Your task to perform on an android device: open app "Speedtest by Ookla" (install if not already installed) and enter user name: "hyena@outlook.com" and password: "terminators" Image 0: 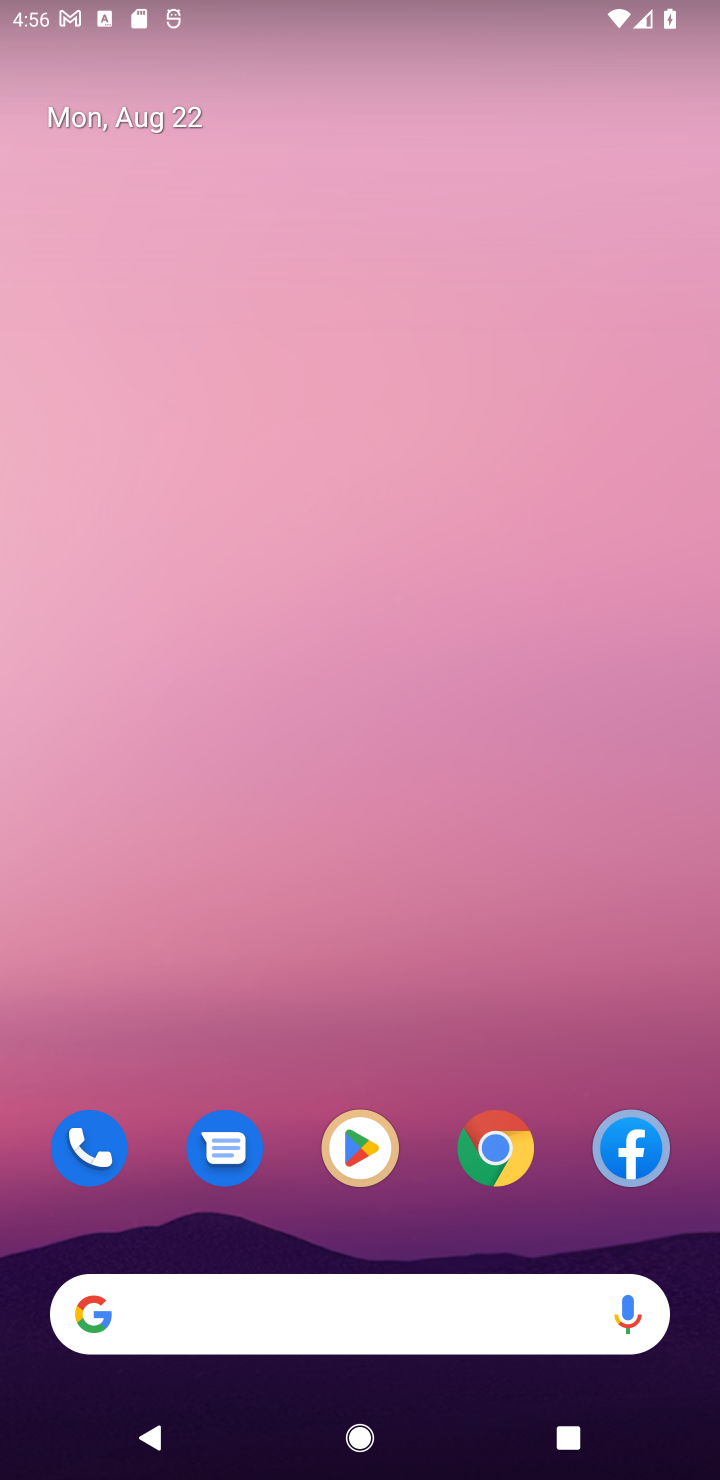
Step 0: drag from (384, 1273) to (359, 24)
Your task to perform on an android device: open app "Speedtest by Ookla" (install if not already installed) and enter user name: "hyena@outlook.com" and password: "terminators" Image 1: 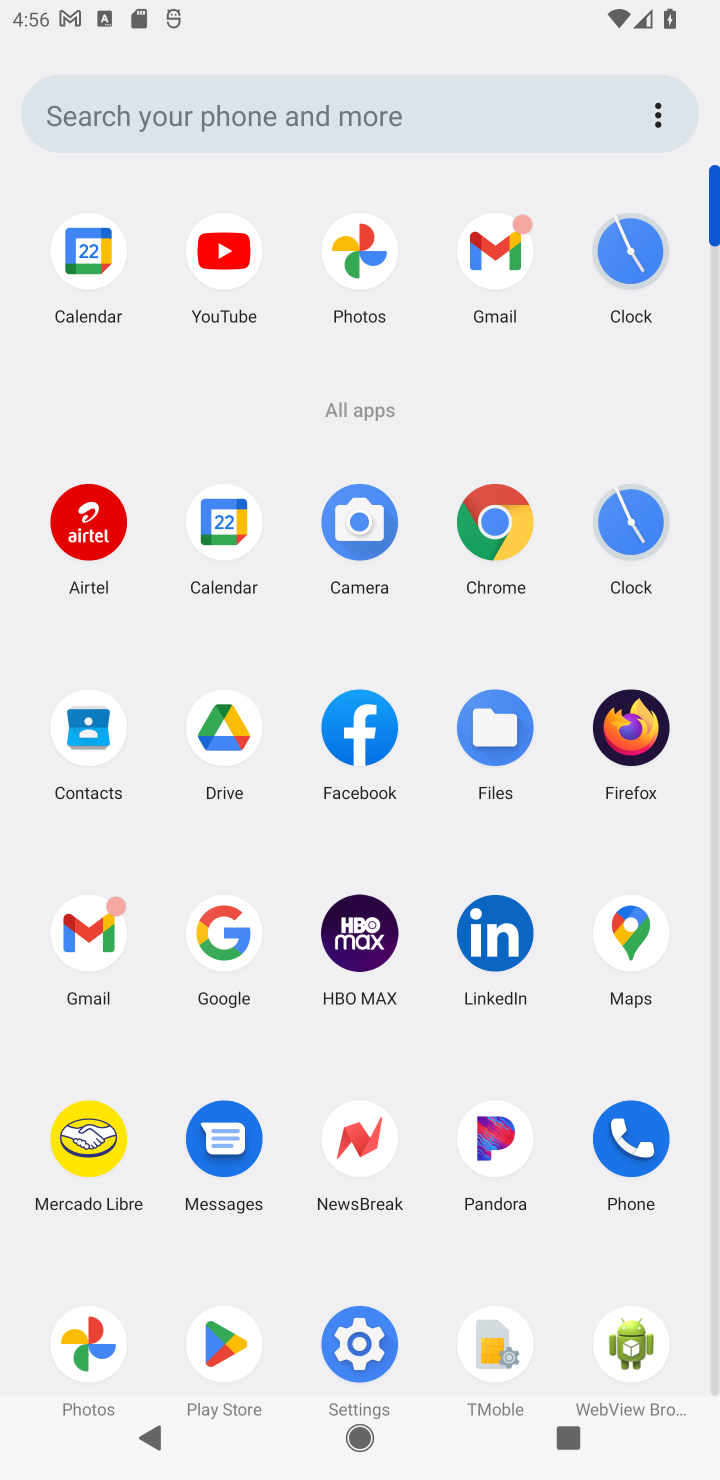
Step 1: click (226, 1341)
Your task to perform on an android device: open app "Speedtest by Ookla" (install if not already installed) and enter user name: "hyena@outlook.com" and password: "terminators" Image 2: 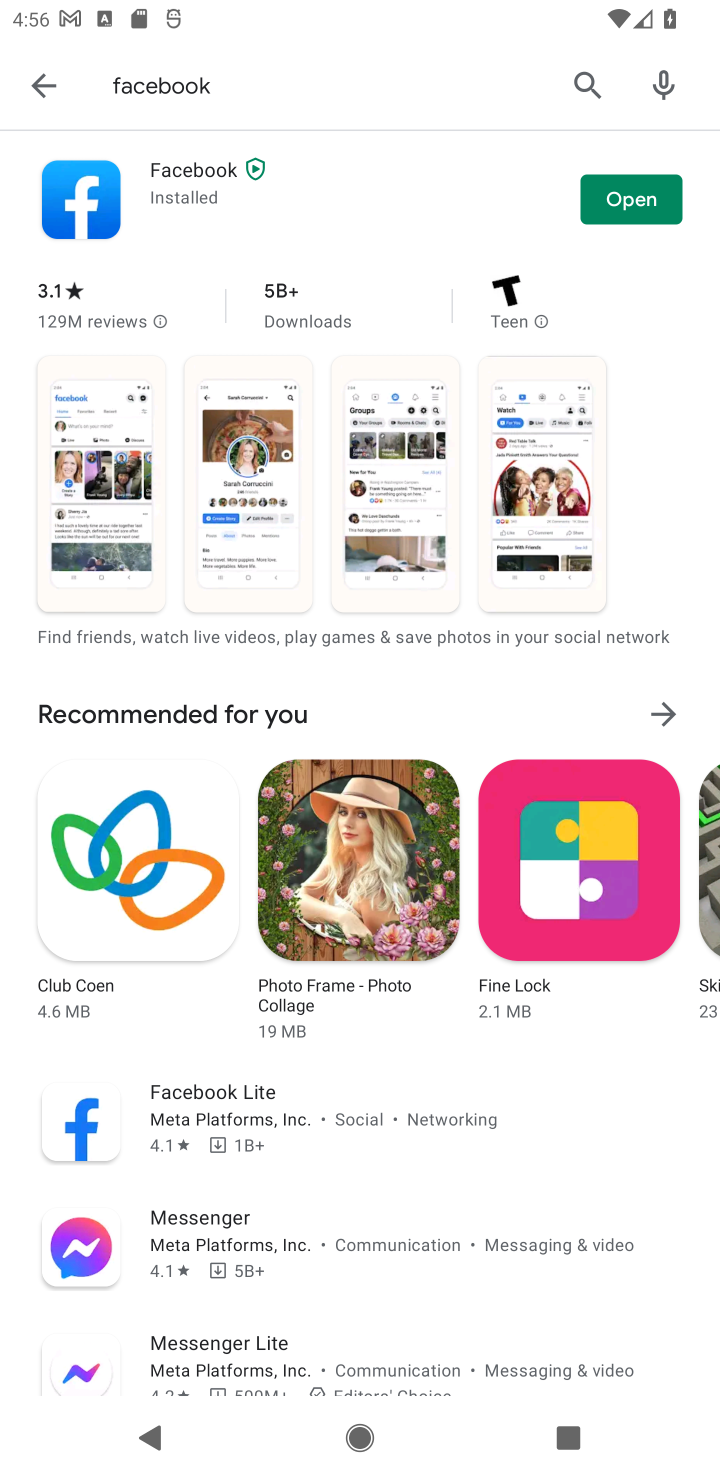
Step 2: click (579, 69)
Your task to perform on an android device: open app "Speedtest by Ookla" (install if not already installed) and enter user name: "hyena@outlook.com" and password: "terminators" Image 3: 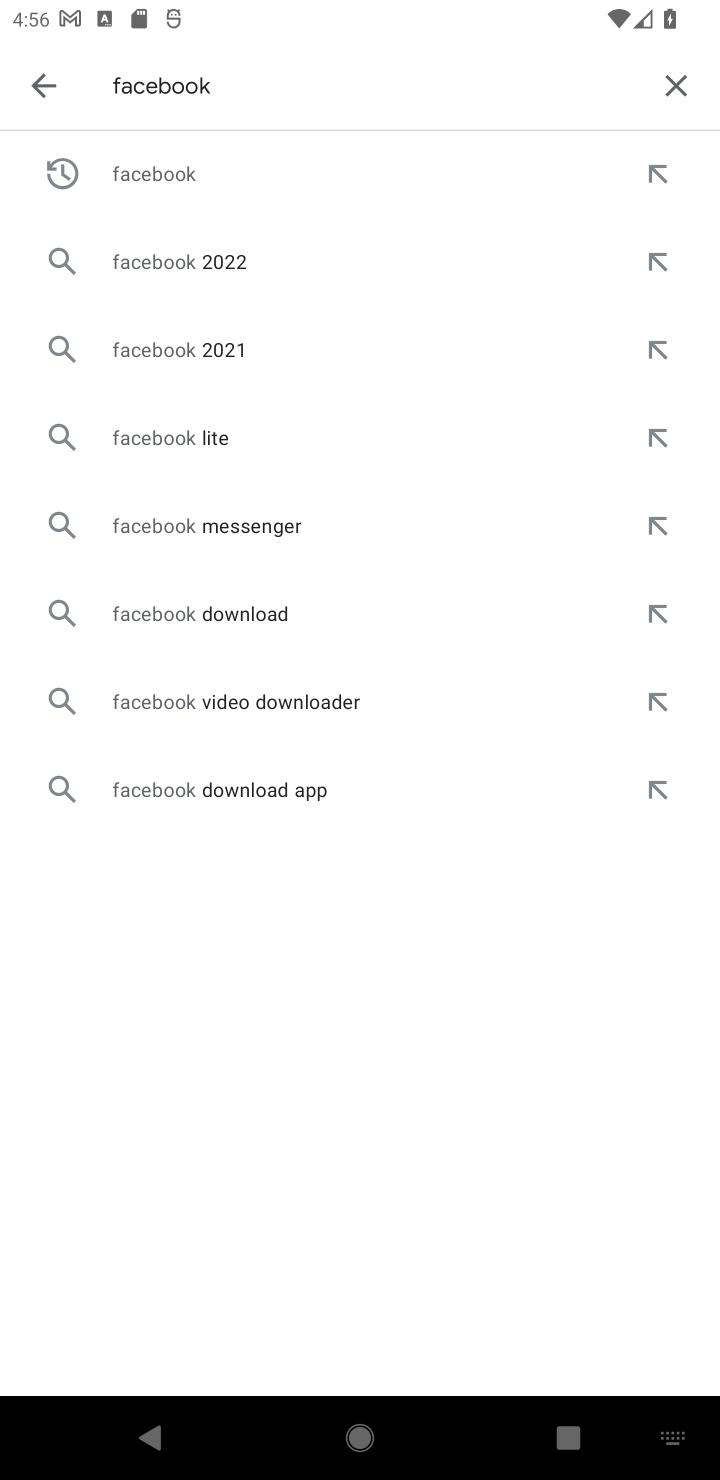
Step 3: click (673, 80)
Your task to perform on an android device: open app "Speedtest by Ookla" (install if not already installed) and enter user name: "hyena@outlook.com" and password: "terminators" Image 4: 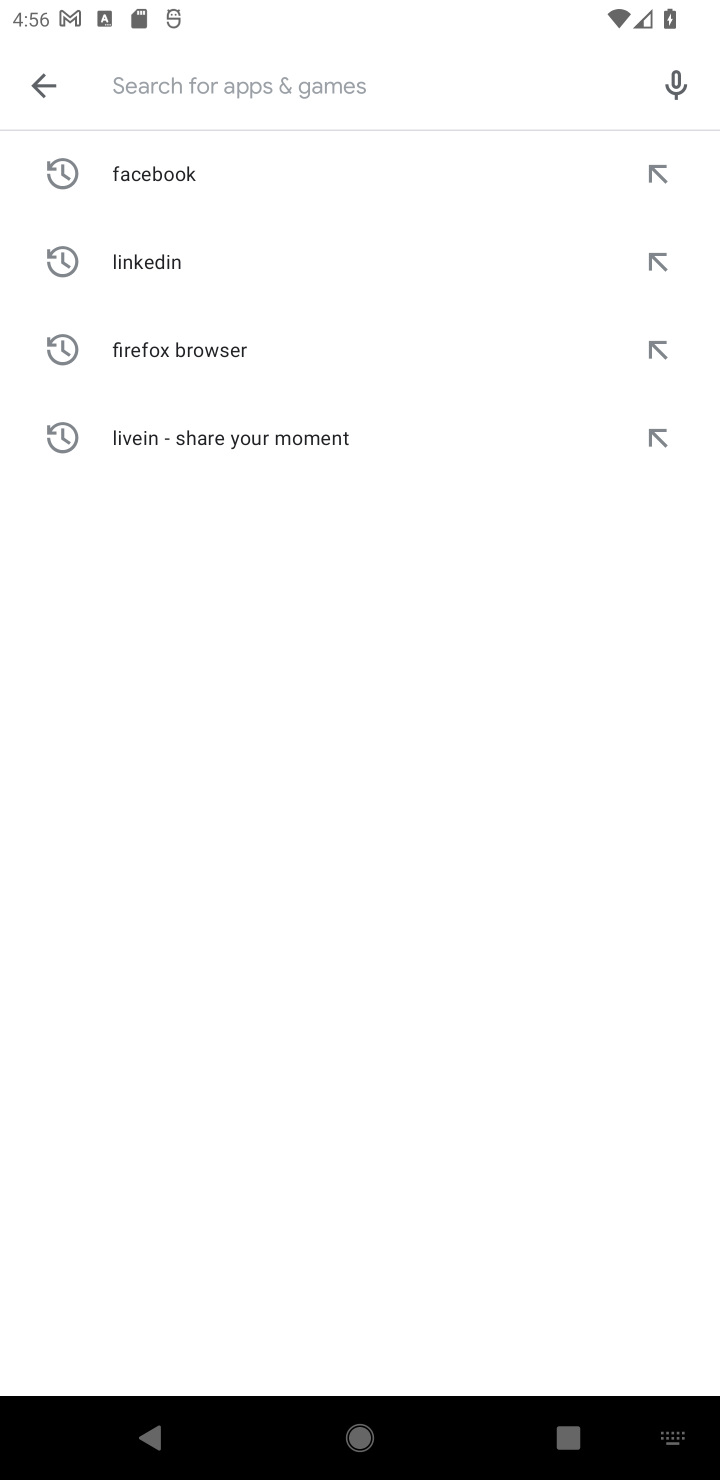
Step 4: type "Speedtest by Ookla"
Your task to perform on an android device: open app "Speedtest by Ookla" (install if not already installed) and enter user name: "hyena@outlook.com" and password: "terminators" Image 5: 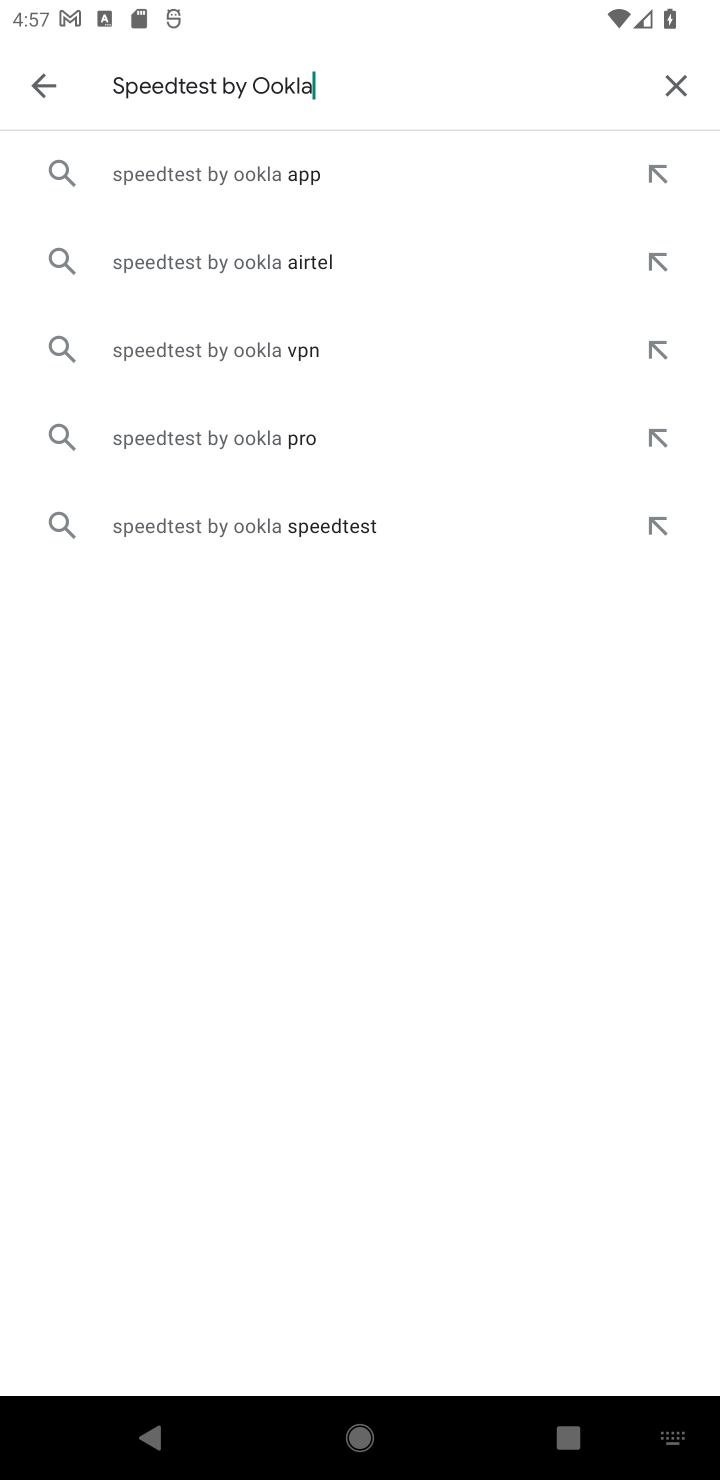
Step 5: click (270, 172)
Your task to perform on an android device: open app "Speedtest by Ookla" (install if not already installed) and enter user name: "hyena@outlook.com" and password: "terminators" Image 6: 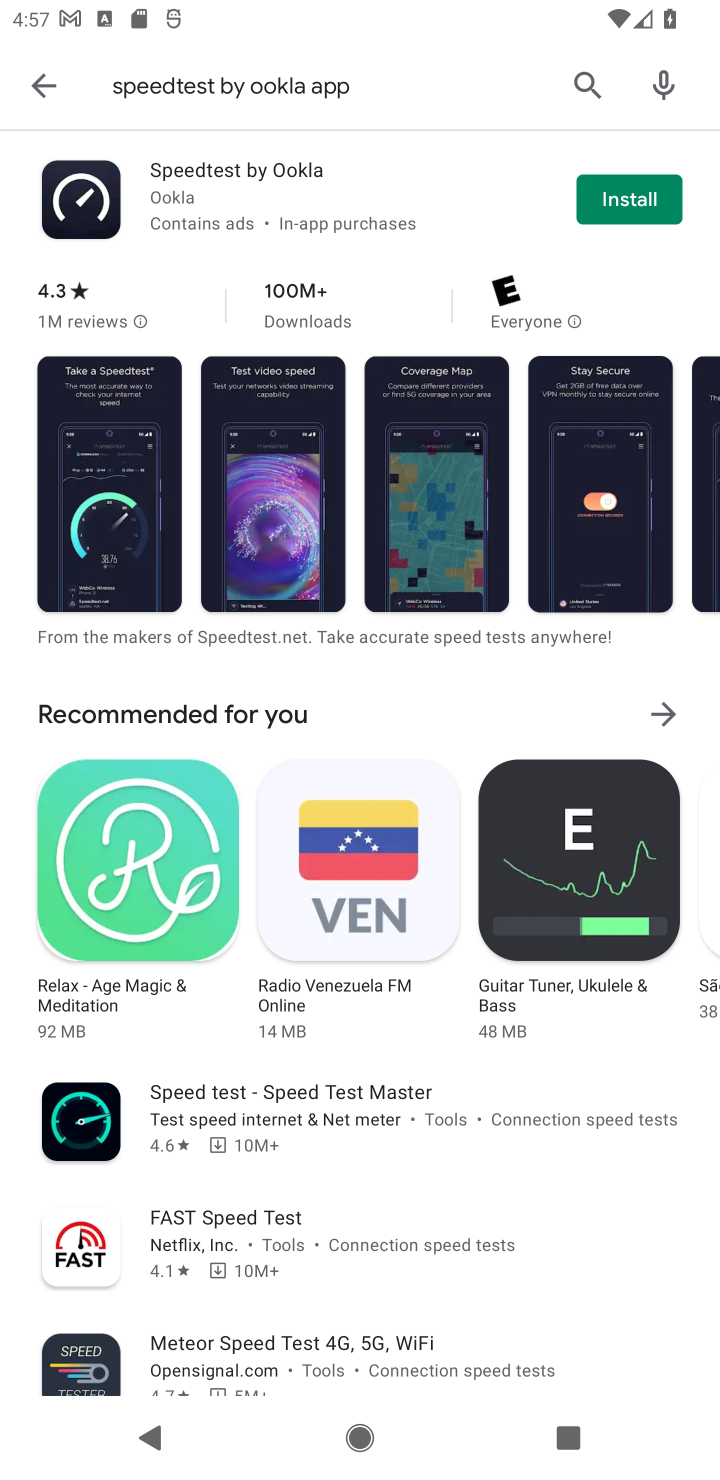
Step 6: click (638, 200)
Your task to perform on an android device: open app "Speedtest by Ookla" (install if not already installed) and enter user name: "hyena@outlook.com" and password: "terminators" Image 7: 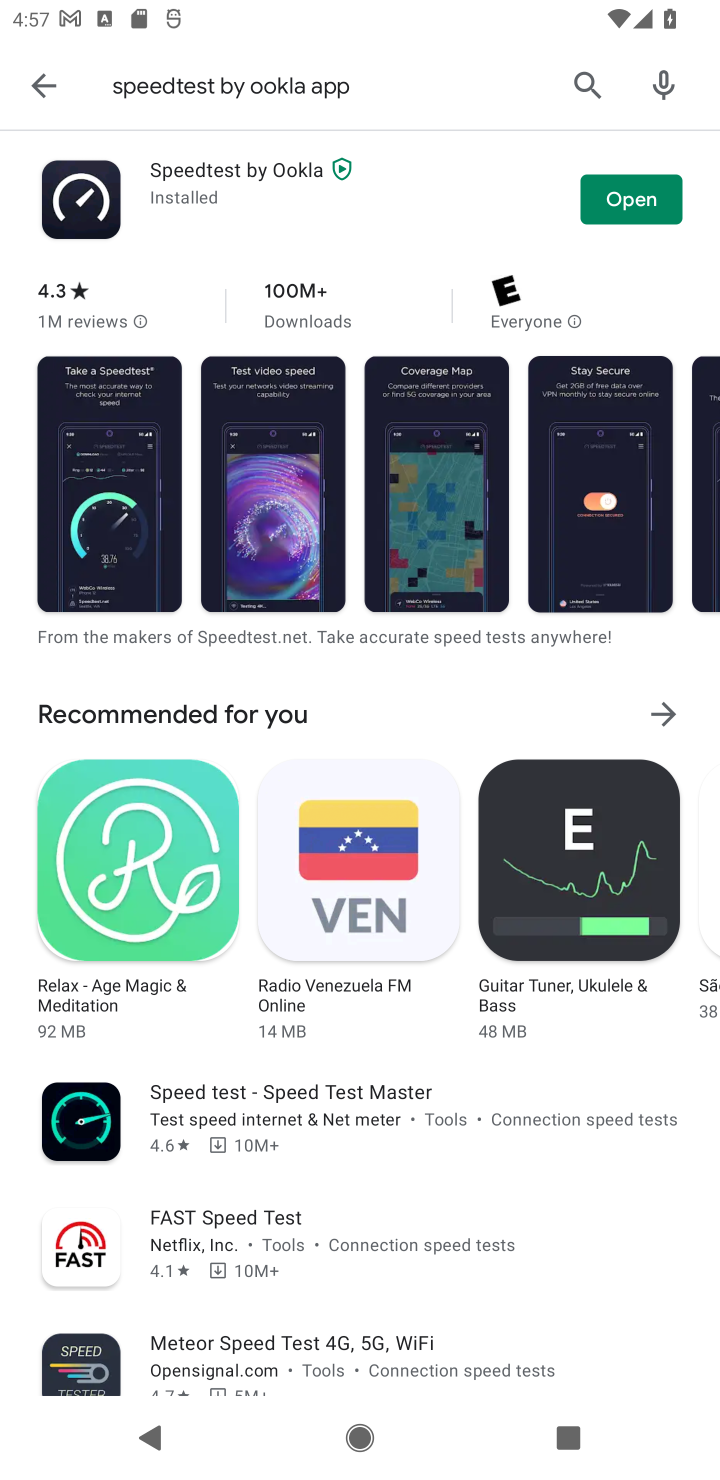
Step 7: click (638, 200)
Your task to perform on an android device: open app "Speedtest by Ookla" (install if not already installed) and enter user name: "hyena@outlook.com" and password: "terminators" Image 8: 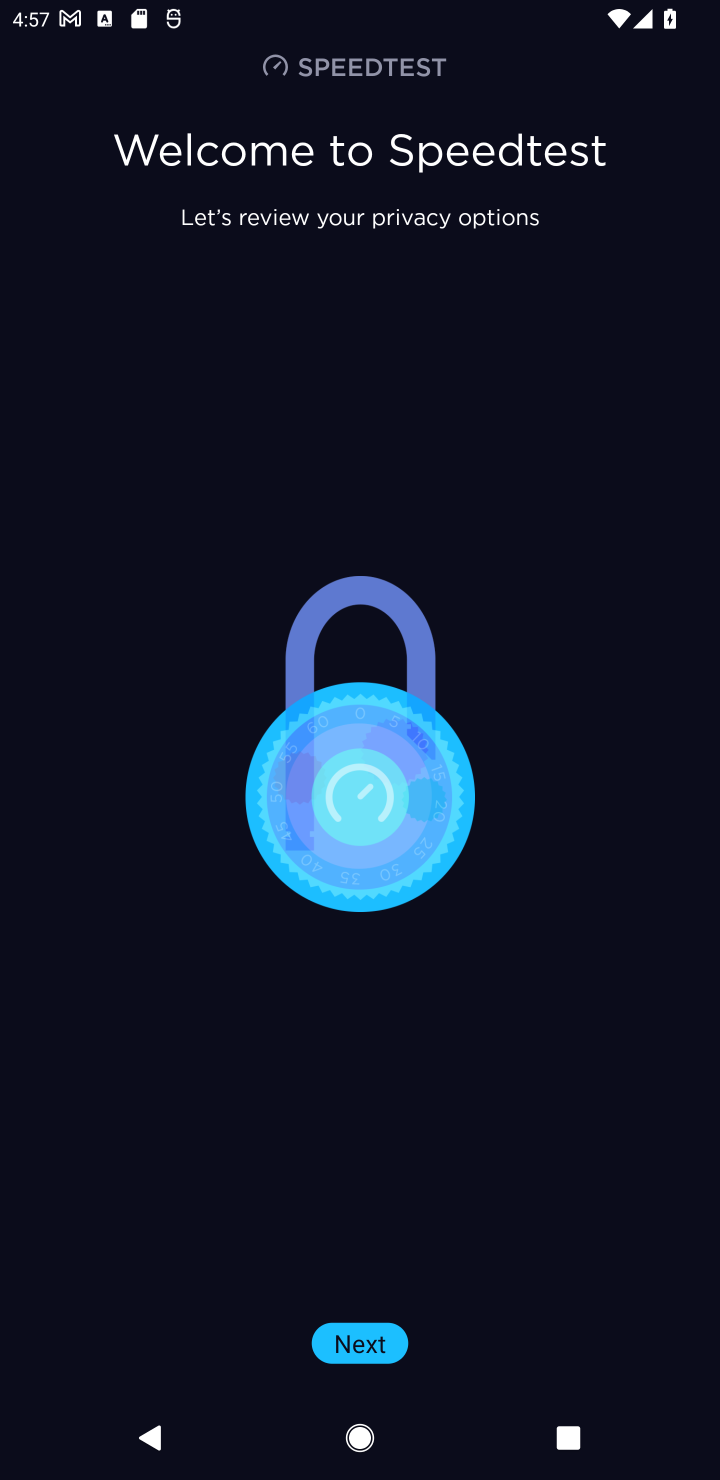
Step 8: click (357, 1351)
Your task to perform on an android device: open app "Speedtest by Ookla" (install if not already installed) and enter user name: "hyena@outlook.com" and password: "terminators" Image 9: 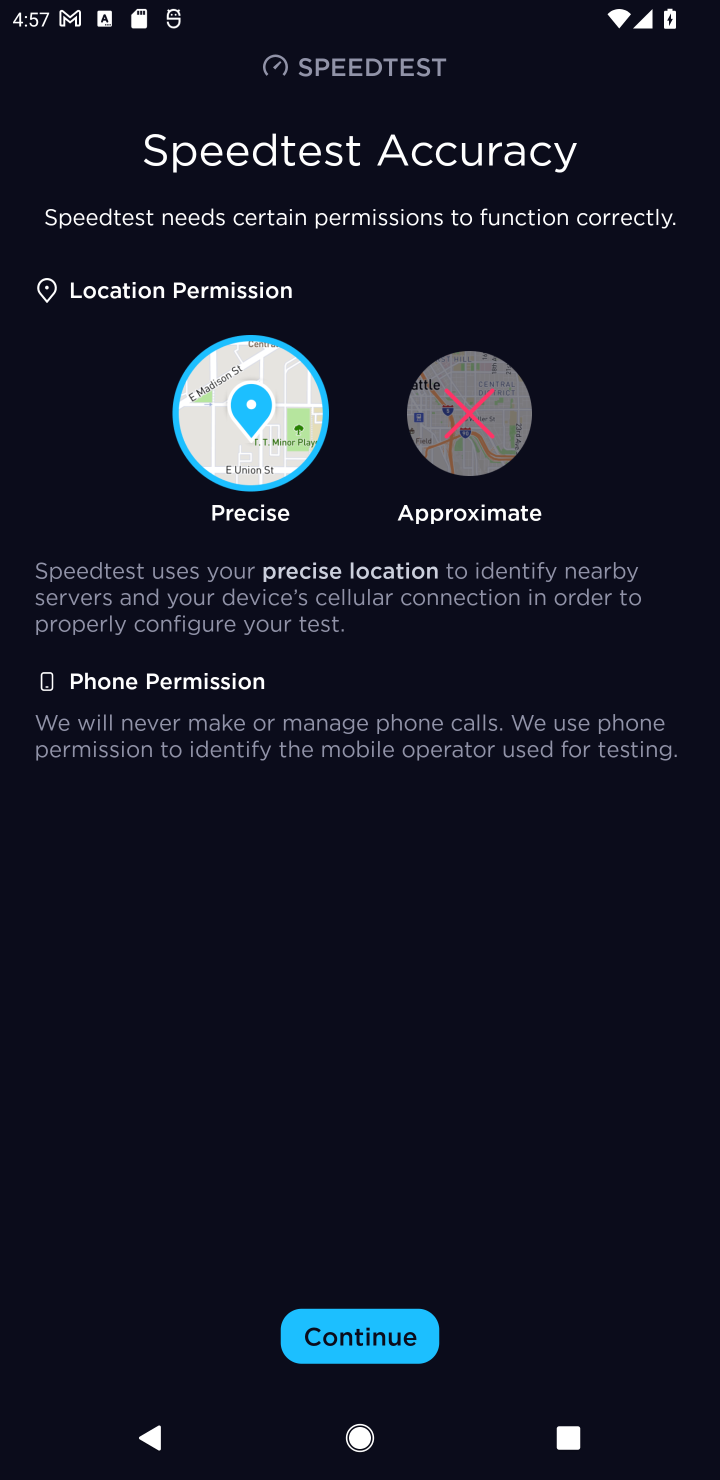
Step 9: click (357, 1350)
Your task to perform on an android device: open app "Speedtest by Ookla" (install if not already installed) and enter user name: "hyena@outlook.com" and password: "terminators" Image 10: 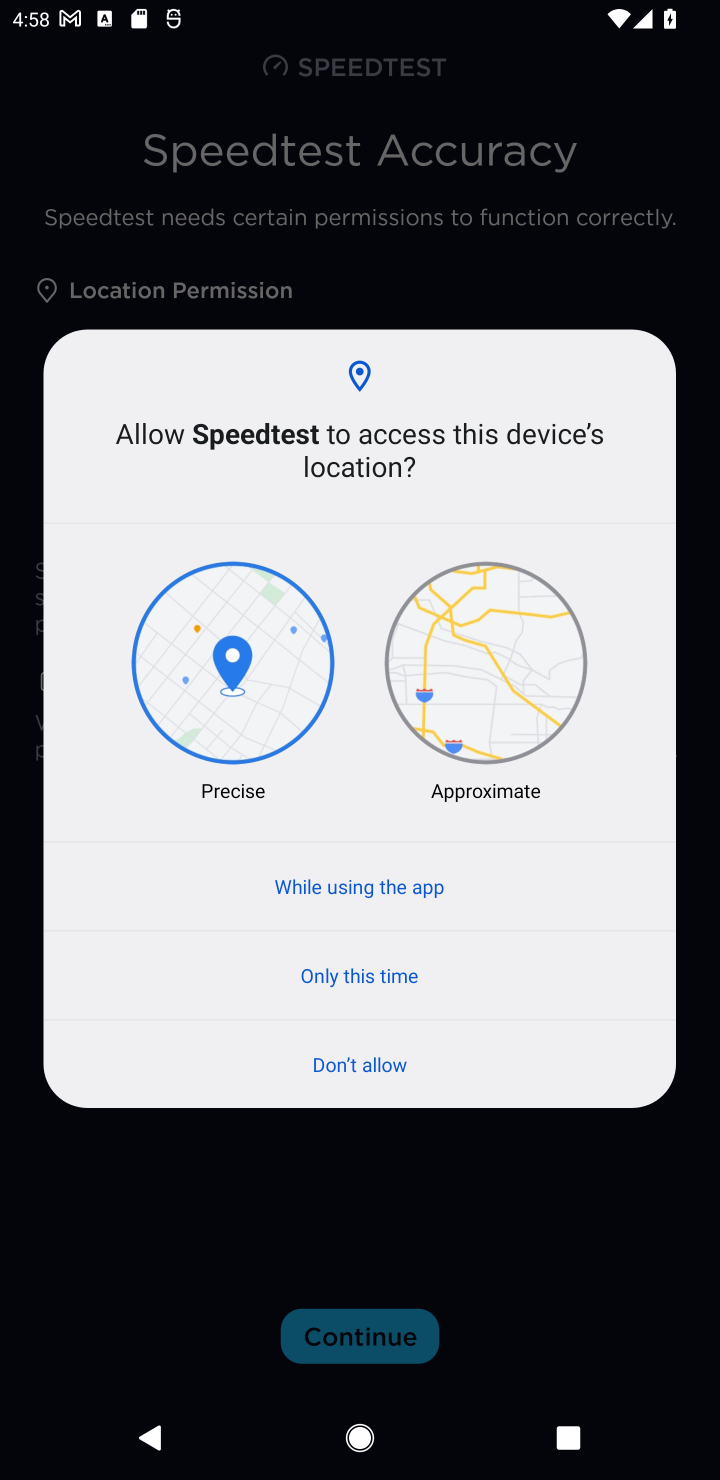
Step 10: click (365, 891)
Your task to perform on an android device: open app "Speedtest by Ookla" (install if not already installed) and enter user name: "hyena@outlook.com" and password: "terminators" Image 11: 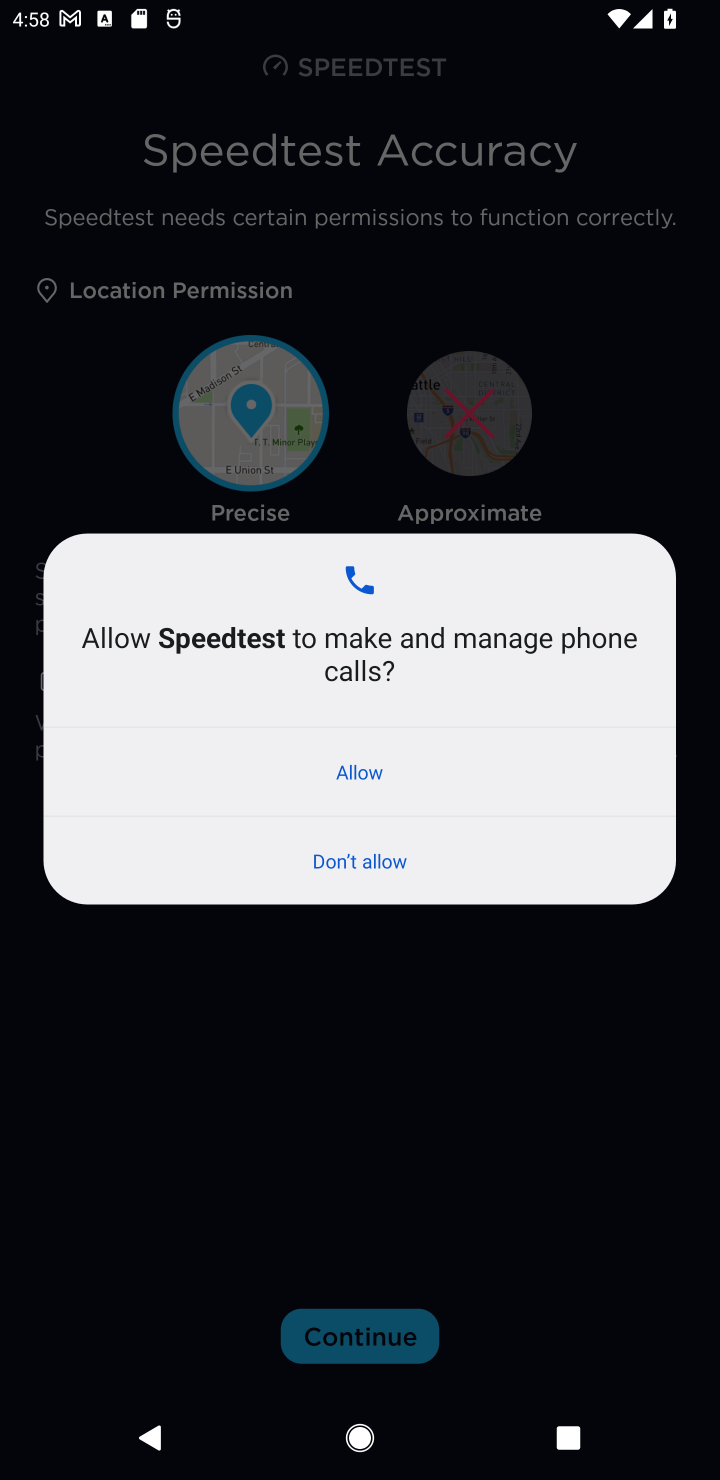
Step 11: click (368, 771)
Your task to perform on an android device: open app "Speedtest by Ookla" (install if not already installed) and enter user name: "hyena@outlook.com" and password: "terminators" Image 12: 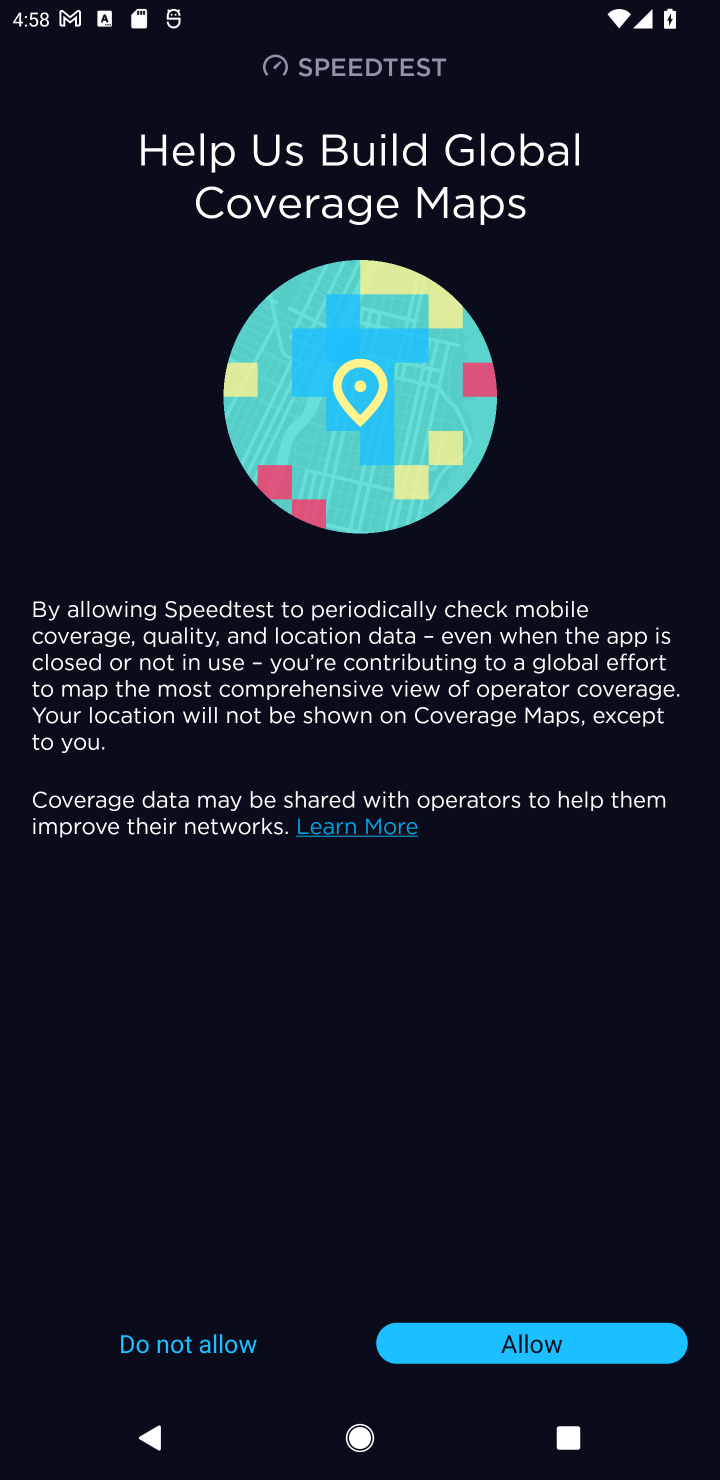
Step 12: click (549, 1345)
Your task to perform on an android device: open app "Speedtest by Ookla" (install if not already installed) and enter user name: "hyena@outlook.com" and password: "terminators" Image 13: 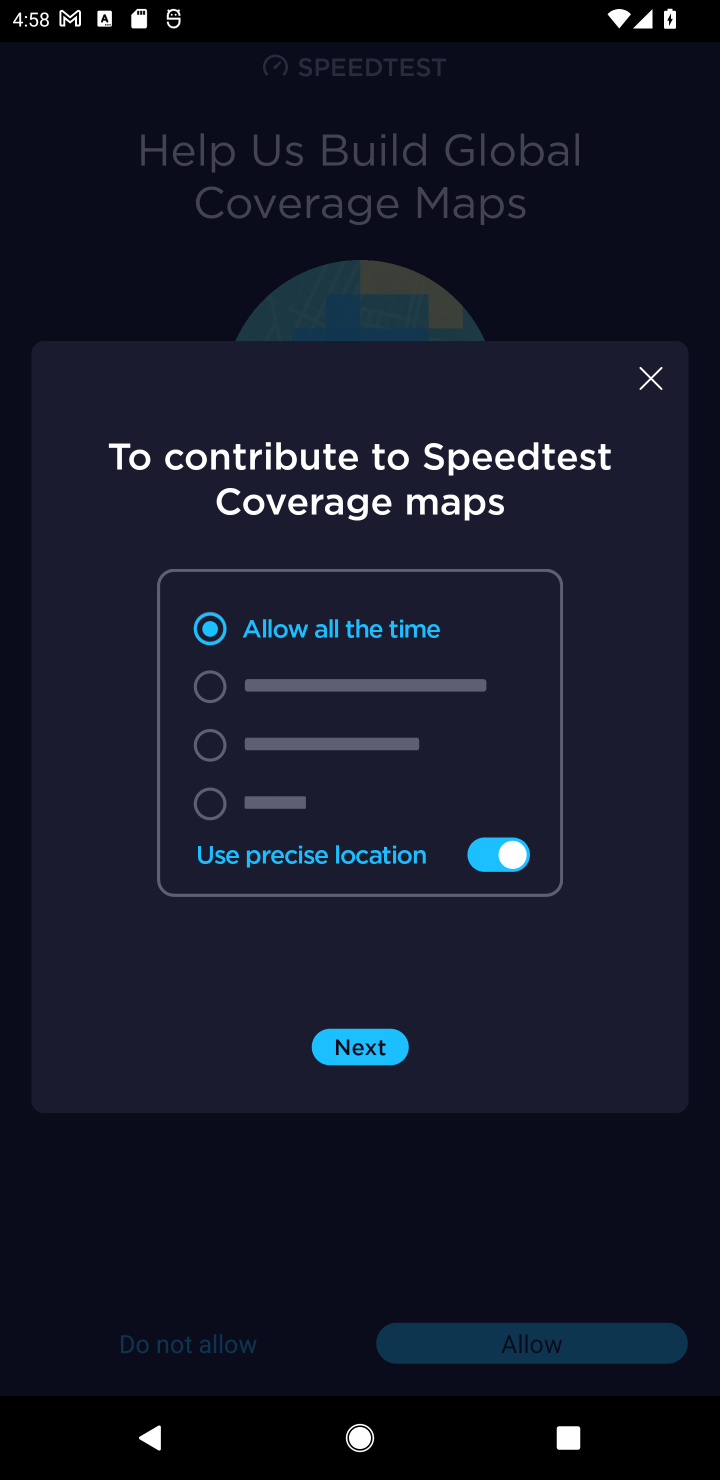
Step 13: click (647, 377)
Your task to perform on an android device: open app "Speedtest by Ookla" (install if not already installed) and enter user name: "hyena@outlook.com" and password: "terminators" Image 14: 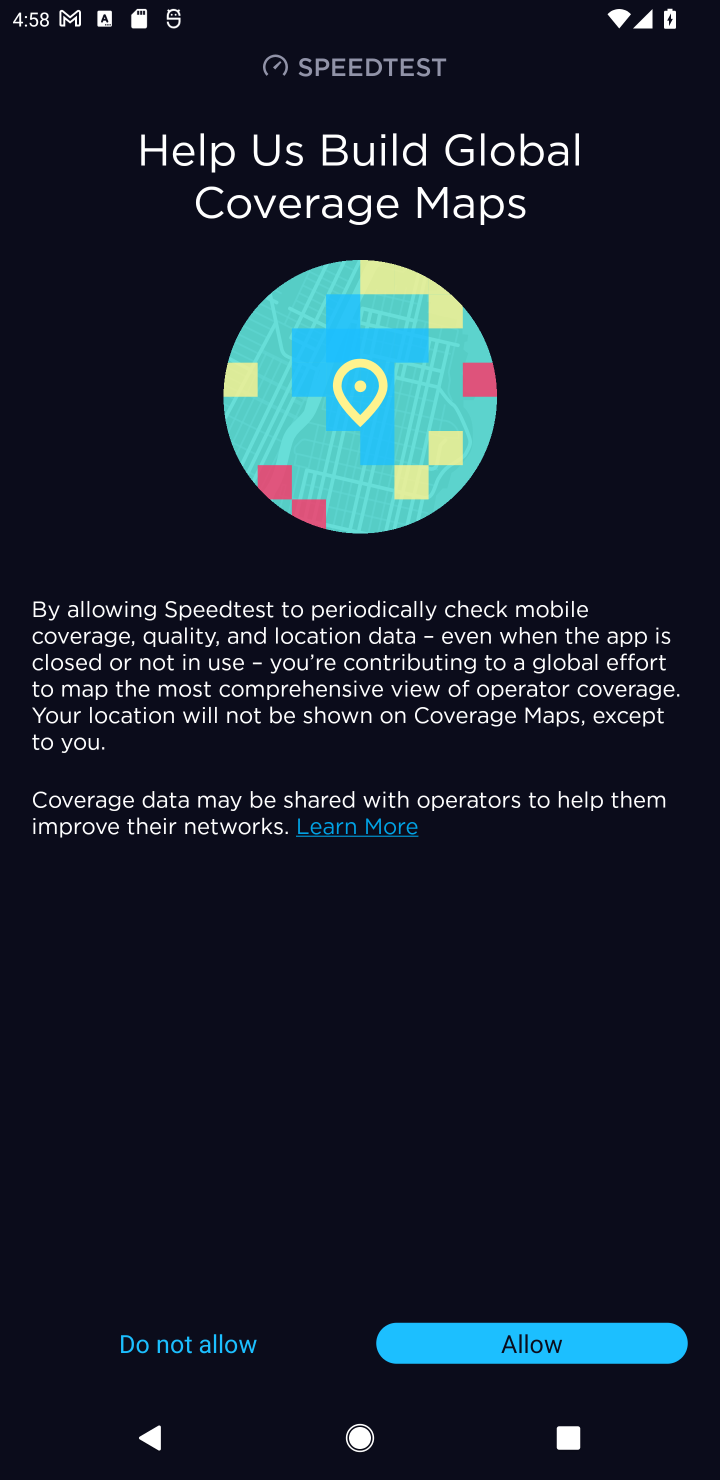
Step 14: click (561, 1342)
Your task to perform on an android device: open app "Speedtest by Ookla" (install if not already installed) and enter user name: "hyena@outlook.com" and password: "terminators" Image 15: 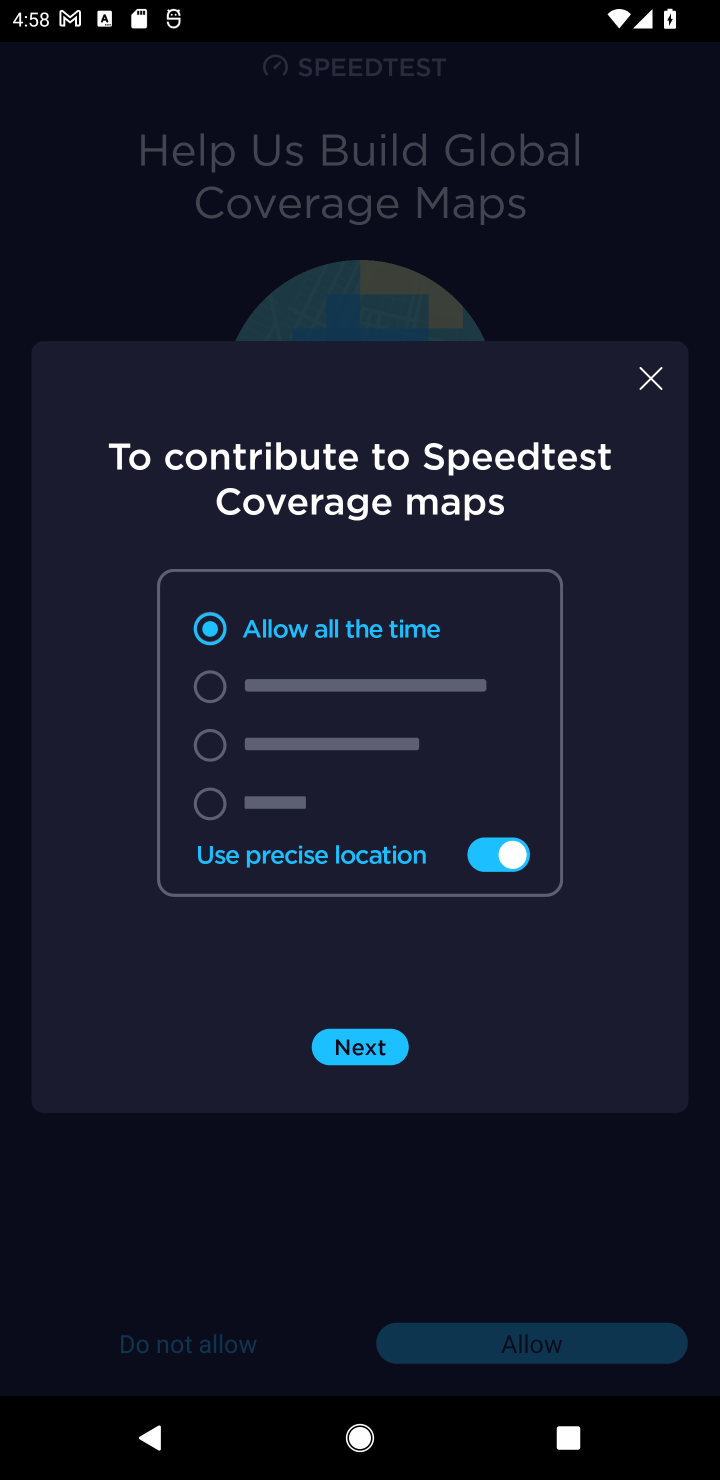
Step 15: click (361, 1049)
Your task to perform on an android device: open app "Speedtest by Ookla" (install if not already installed) and enter user name: "hyena@outlook.com" and password: "terminators" Image 16: 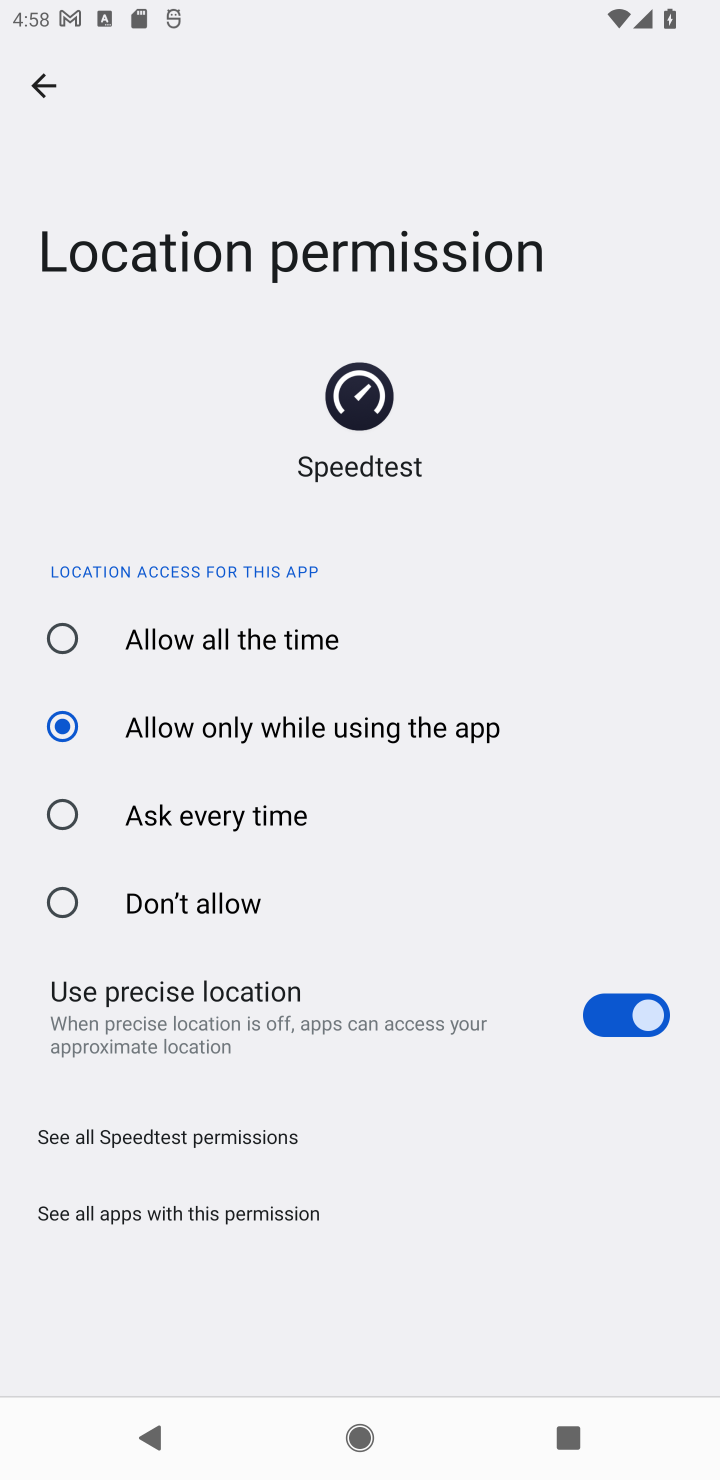
Step 16: click (44, 88)
Your task to perform on an android device: open app "Speedtest by Ookla" (install if not already installed) and enter user name: "hyena@outlook.com" and password: "terminators" Image 17: 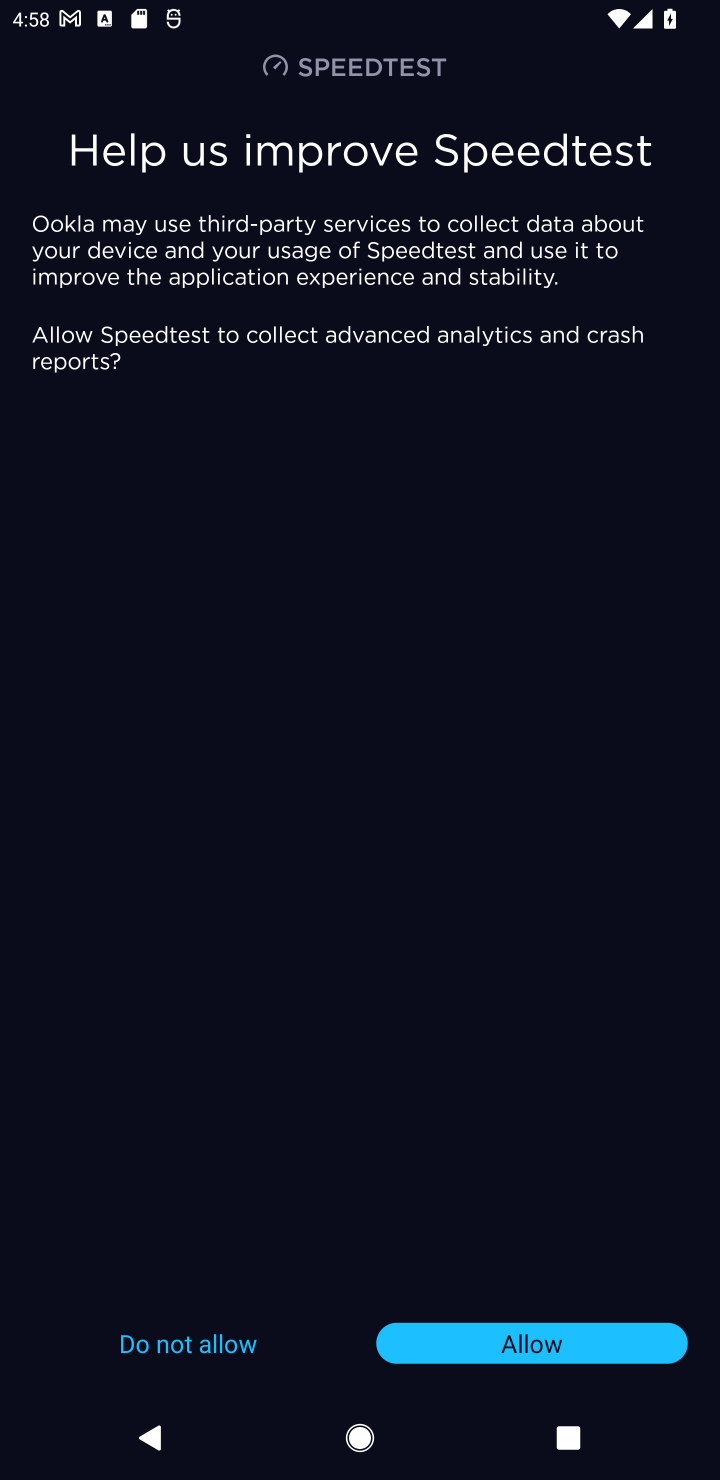
Step 17: click (450, 1350)
Your task to perform on an android device: open app "Speedtest by Ookla" (install if not already installed) and enter user name: "hyena@outlook.com" and password: "terminators" Image 18: 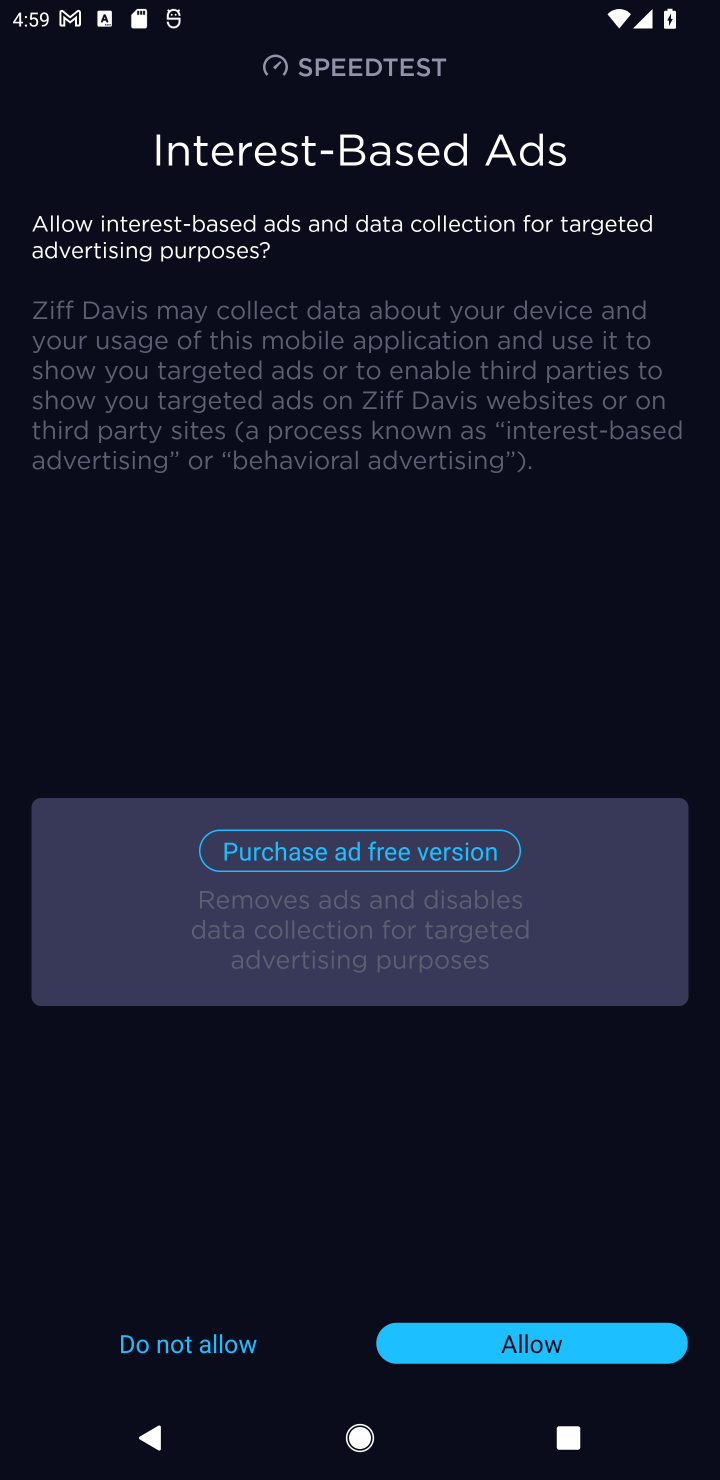
Step 18: click (180, 1346)
Your task to perform on an android device: open app "Speedtest by Ookla" (install if not already installed) and enter user name: "hyena@outlook.com" and password: "terminators" Image 19: 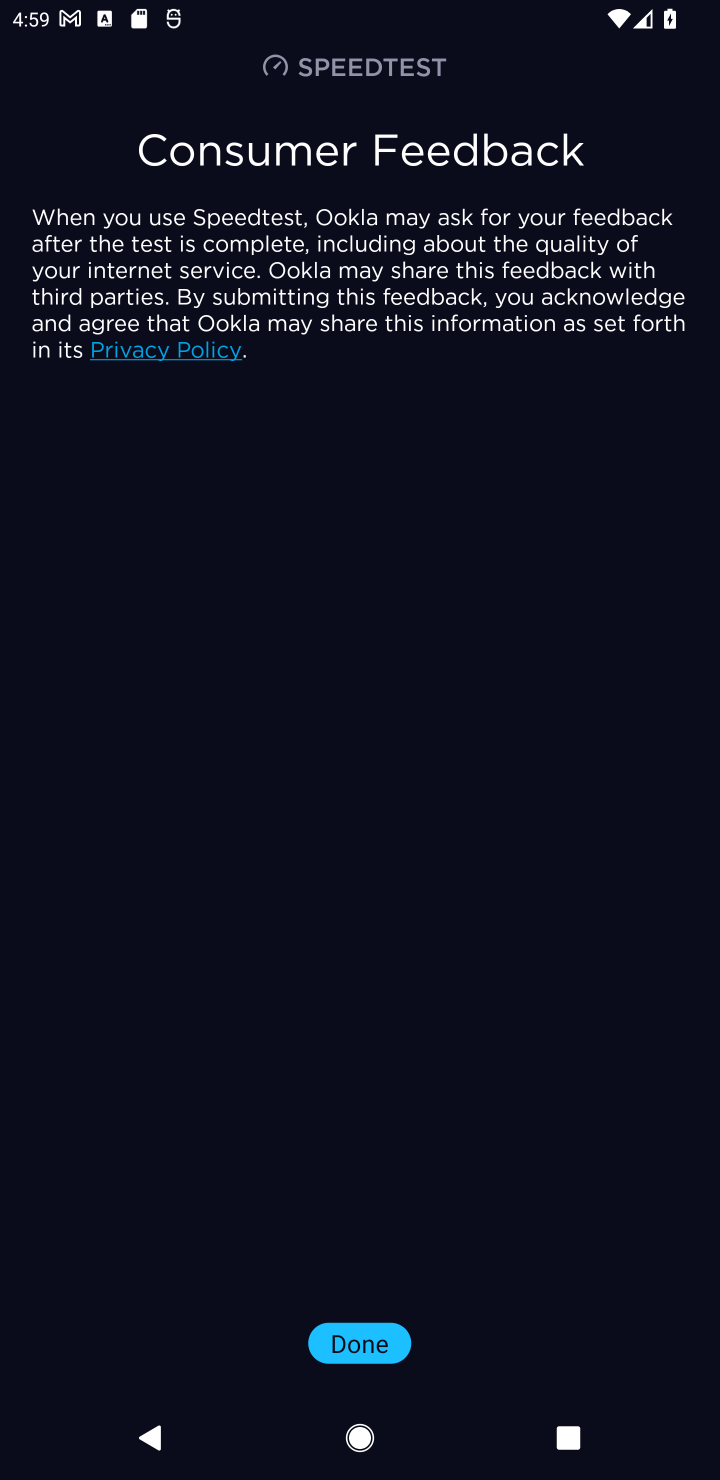
Step 19: click (350, 1345)
Your task to perform on an android device: open app "Speedtest by Ookla" (install if not already installed) and enter user name: "hyena@outlook.com" and password: "terminators" Image 20: 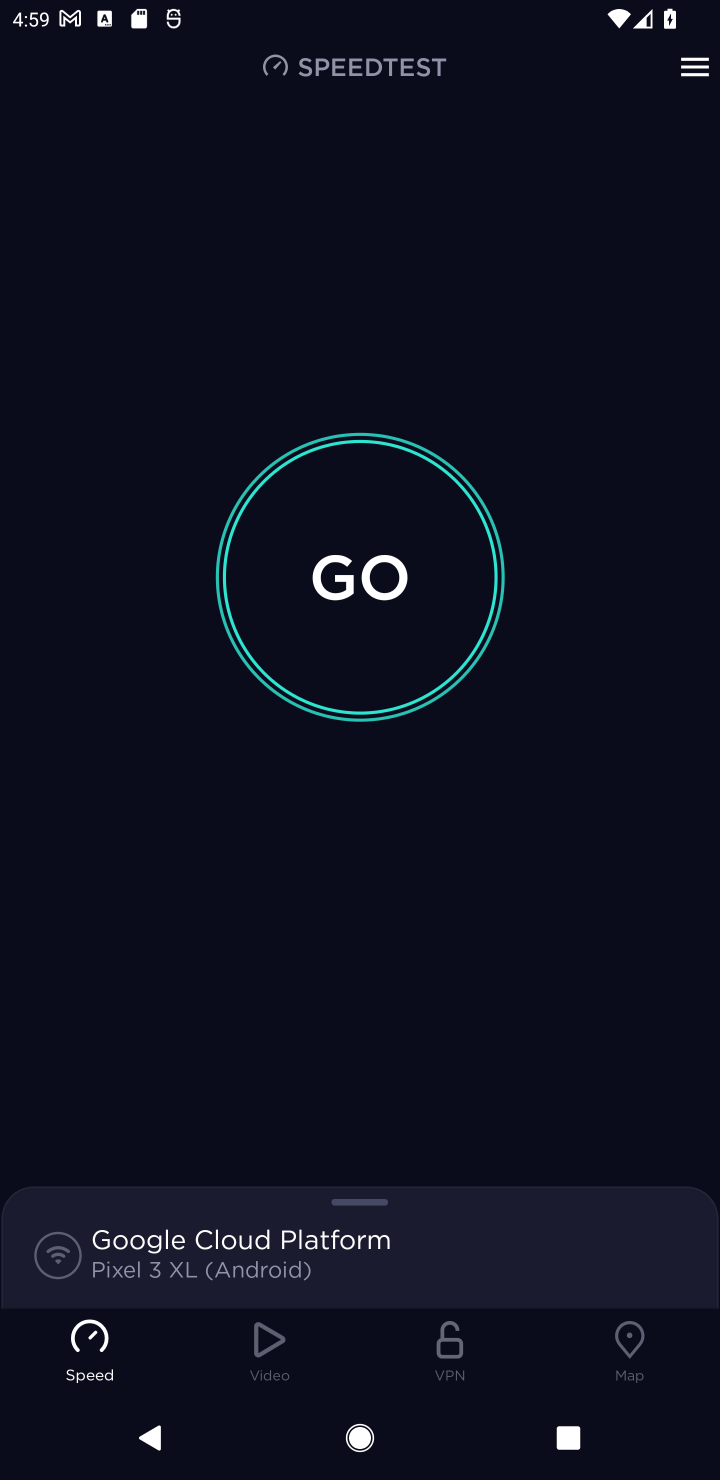
Step 20: task complete